Your task to perform on an android device: move a message to another label in the gmail app Image 0: 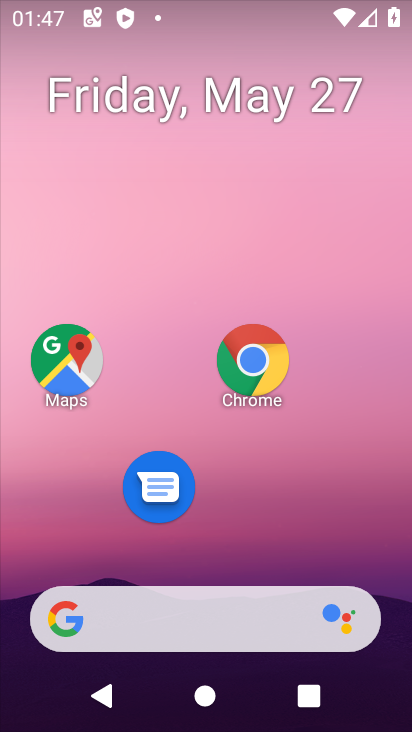
Step 0: drag from (246, 520) to (260, 6)
Your task to perform on an android device: move a message to another label in the gmail app Image 1: 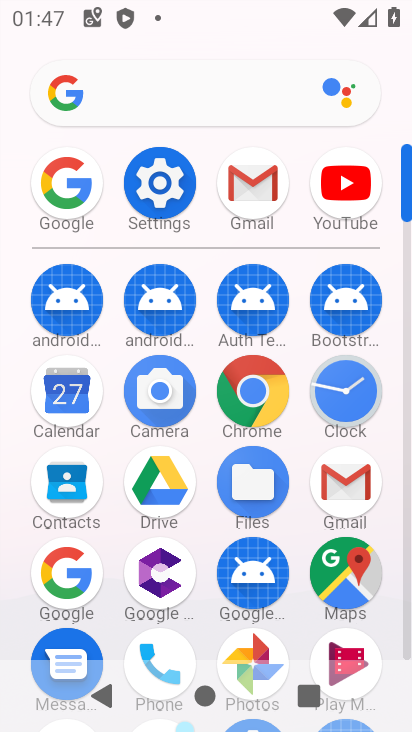
Step 1: click (343, 470)
Your task to perform on an android device: move a message to another label in the gmail app Image 2: 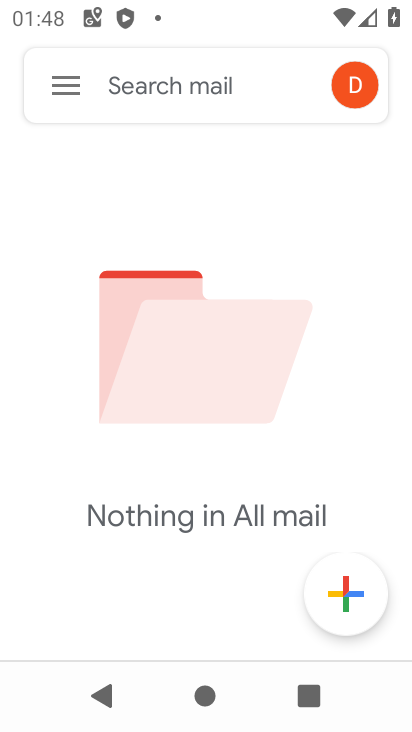
Step 2: task complete